Your task to perform on an android device: Search for Italian restaurants on Maps Image 0: 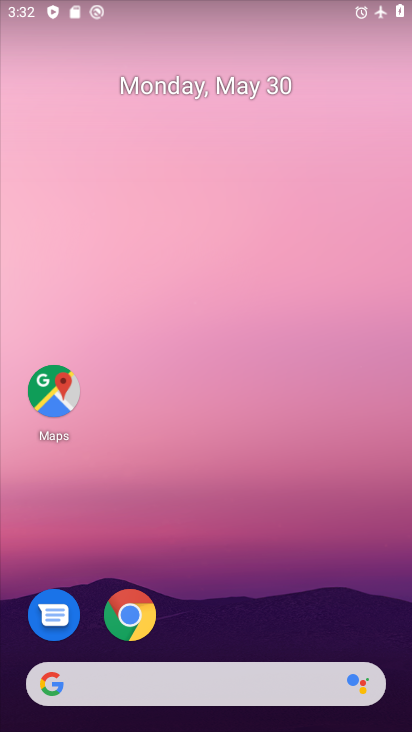
Step 0: click (59, 389)
Your task to perform on an android device: Search for Italian restaurants on Maps Image 1: 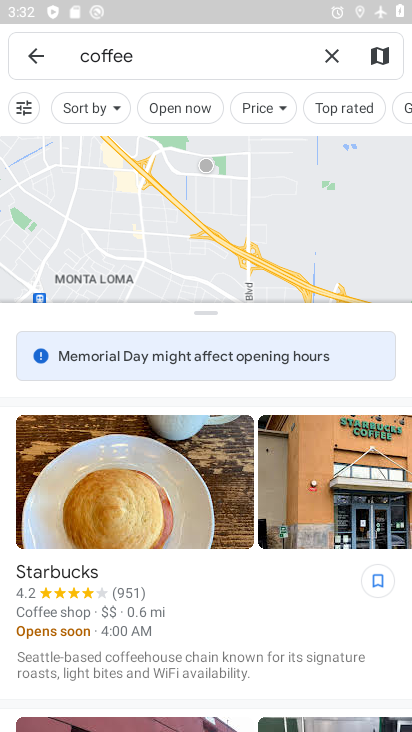
Step 1: click (39, 47)
Your task to perform on an android device: Search for Italian restaurants on Maps Image 2: 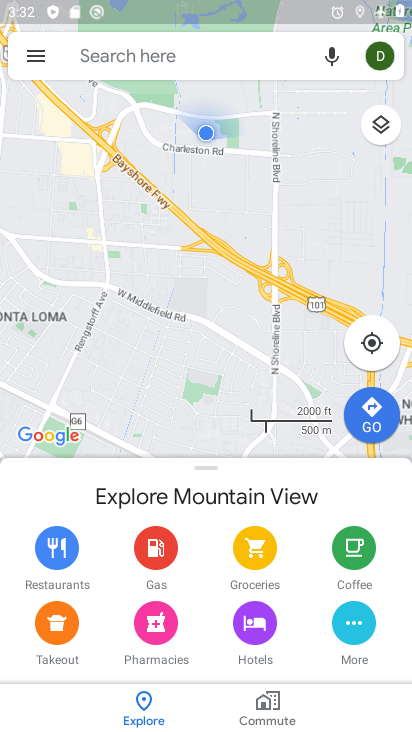
Step 2: click (124, 54)
Your task to perform on an android device: Search for Italian restaurants on Maps Image 3: 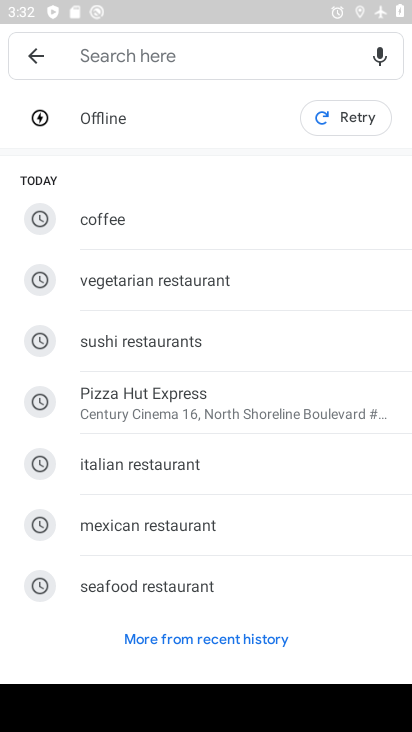
Step 3: click (161, 462)
Your task to perform on an android device: Search for Italian restaurants on Maps Image 4: 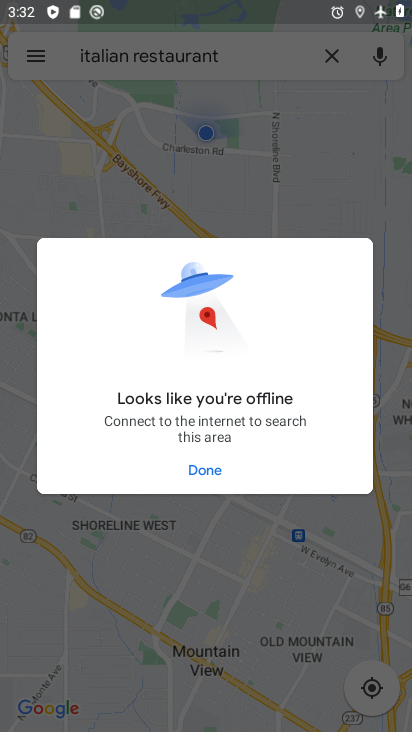
Step 4: task complete